Your task to perform on an android device: Search for sushi restaurants on Maps Image 0: 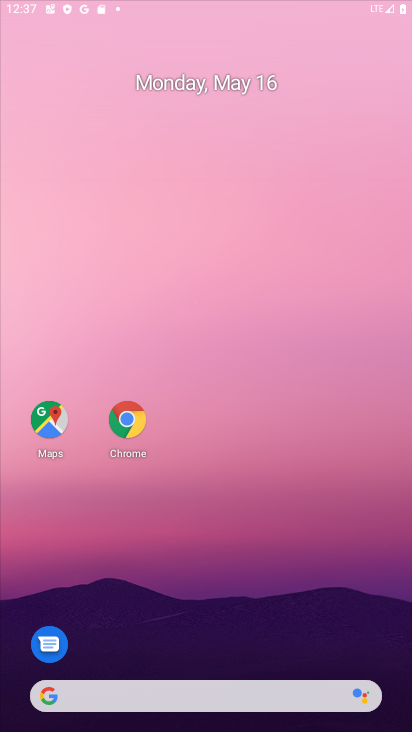
Step 0: click (212, 487)
Your task to perform on an android device: Search for sushi restaurants on Maps Image 1: 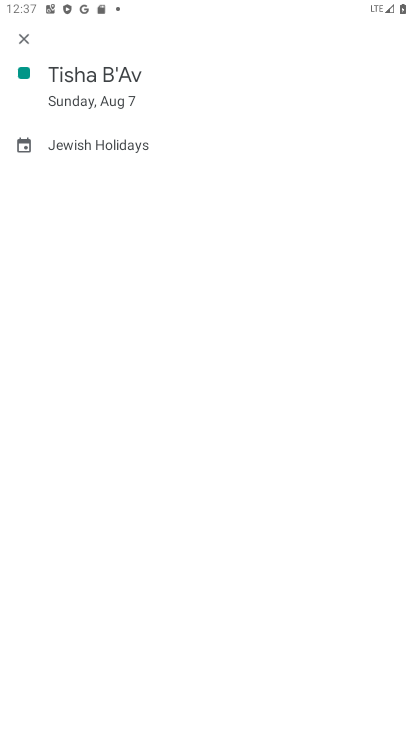
Step 1: press home button
Your task to perform on an android device: Search for sushi restaurants on Maps Image 2: 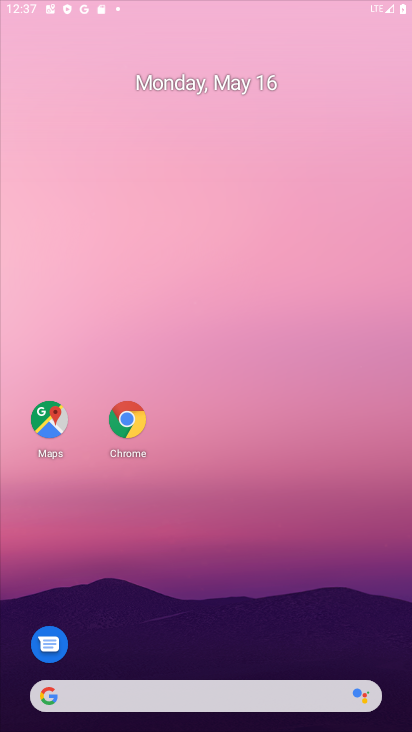
Step 2: drag from (227, 537) to (109, 26)
Your task to perform on an android device: Search for sushi restaurants on Maps Image 3: 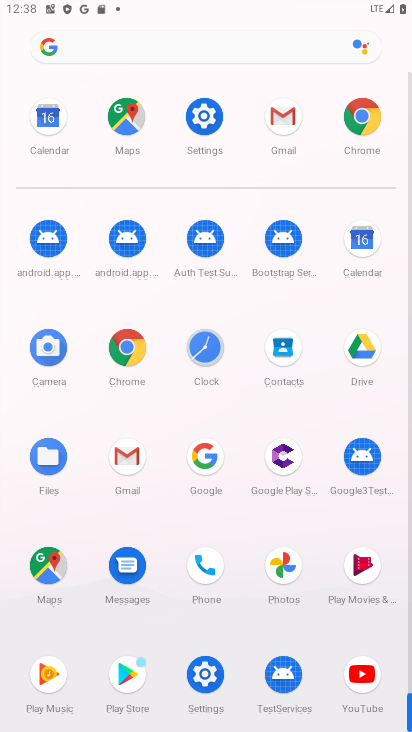
Step 3: click (24, 571)
Your task to perform on an android device: Search for sushi restaurants on Maps Image 4: 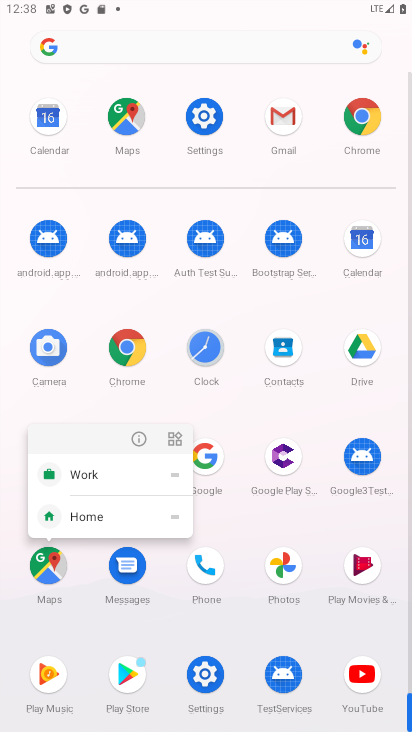
Step 4: click (137, 438)
Your task to perform on an android device: Search for sushi restaurants on Maps Image 5: 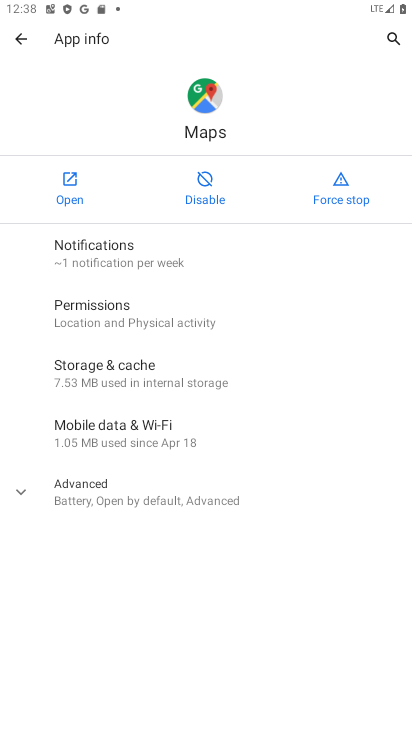
Step 5: click (73, 177)
Your task to perform on an android device: Search for sushi restaurants on Maps Image 6: 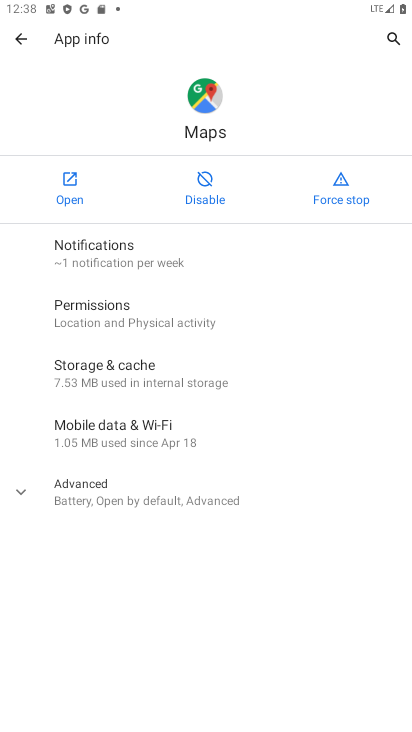
Step 6: click (73, 177)
Your task to perform on an android device: Search for sushi restaurants on Maps Image 7: 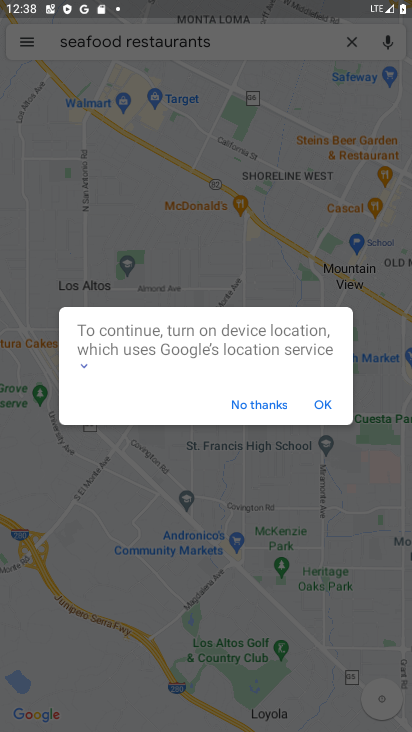
Step 7: click (238, 42)
Your task to perform on an android device: Search for sushi restaurants on Maps Image 8: 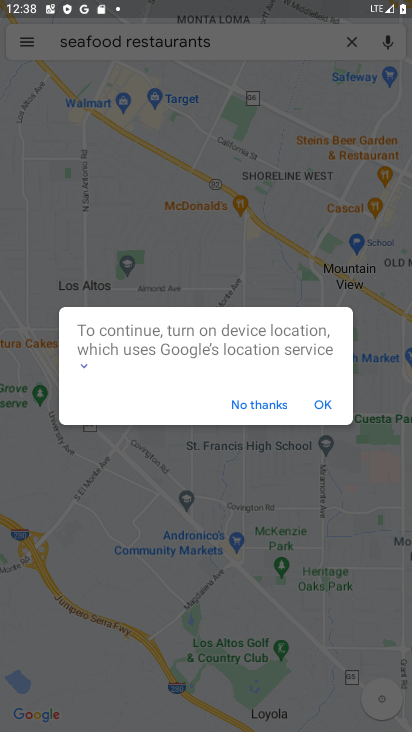
Step 8: click (313, 405)
Your task to perform on an android device: Search for sushi restaurants on Maps Image 9: 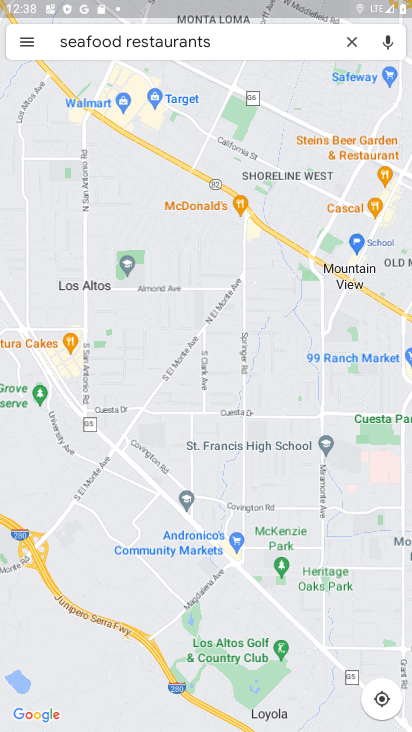
Step 9: click (353, 48)
Your task to perform on an android device: Search for sushi restaurants on Maps Image 10: 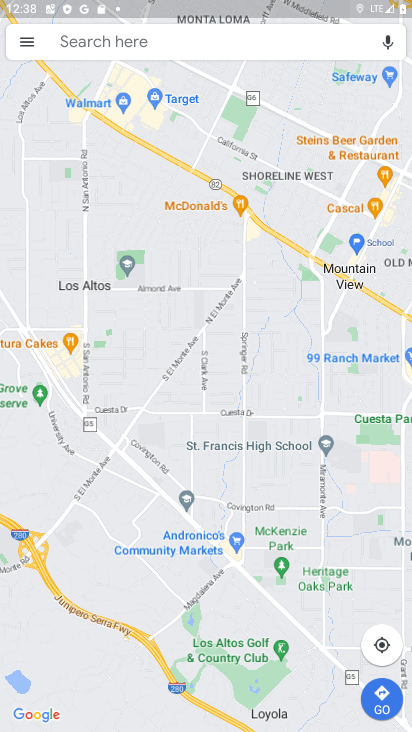
Step 10: click (215, 41)
Your task to perform on an android device: Search for sushi restaurants on Maps Image 11: 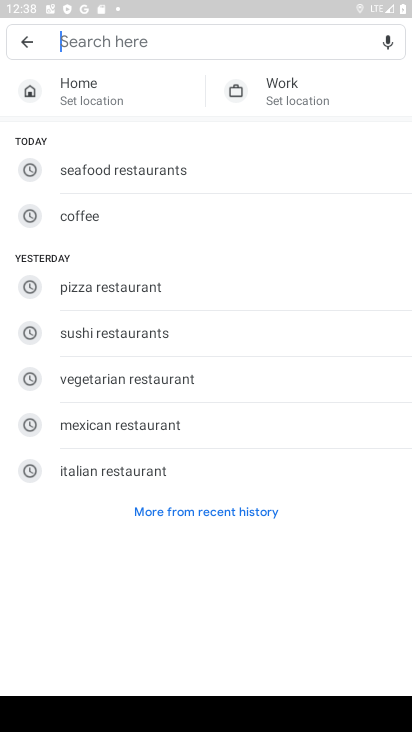
Step 11: click (68, 333)
Your task to perform on an android device: Search for sushi restaurants on Maps Image 12: 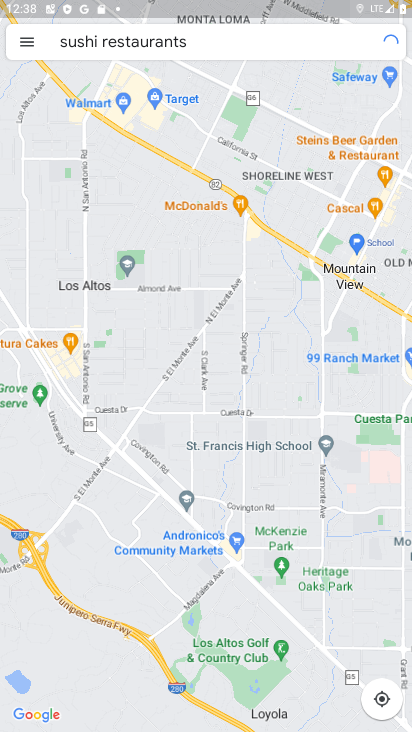
Step 12: task complete